Your task to perform on an android device: Open Maps and search for coffee Image 0: 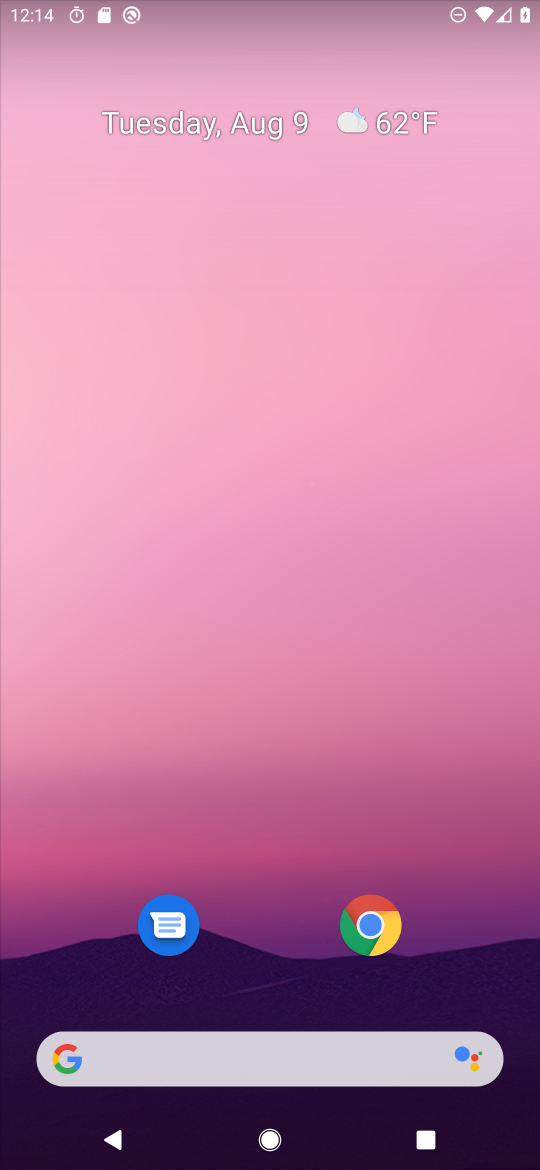
Step 0: drag from (270, 818) to (320, 224)
Your task to perform on an android device: Open Maps and search for coffee Image 1: 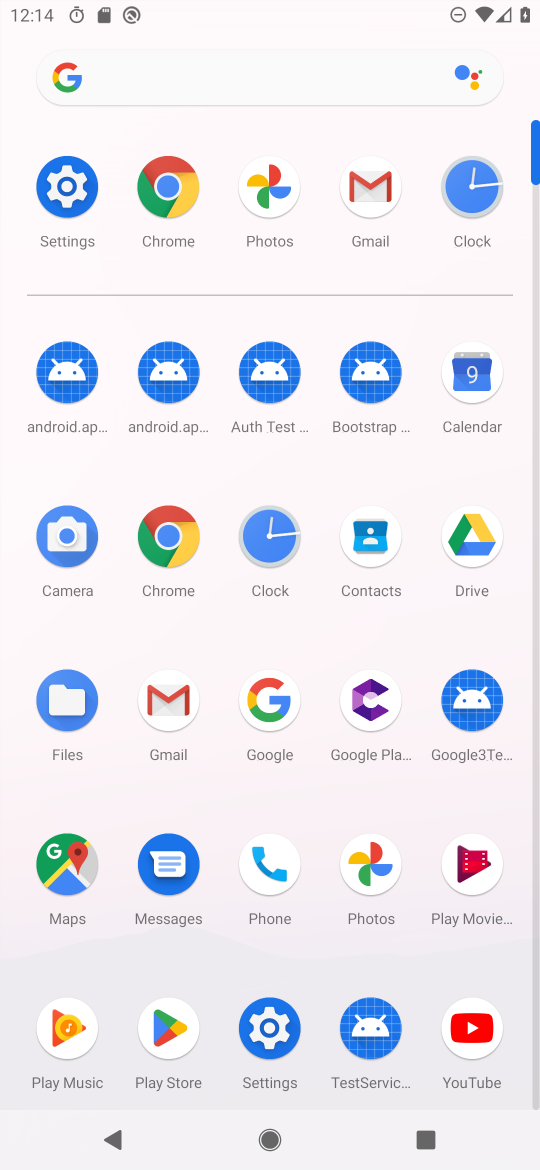
Step 1: click (76, 875)
Your task to perform on an android device: Open Maps and search for coffee Image 2: 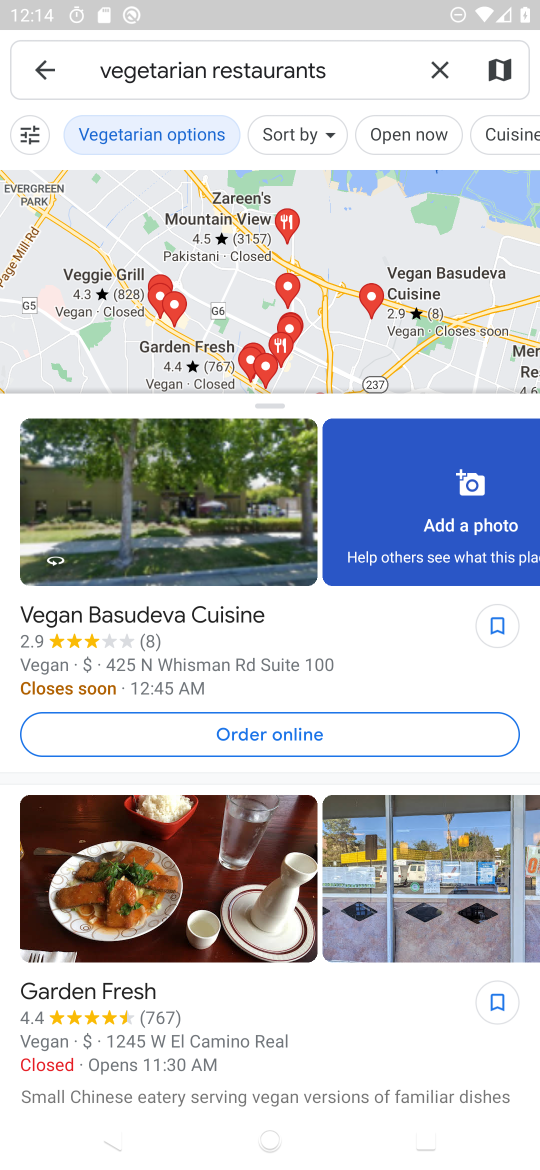
Step 2: click (280, 67)
Your task to perform on an android device: Open Maps and search for coffee Image 3: 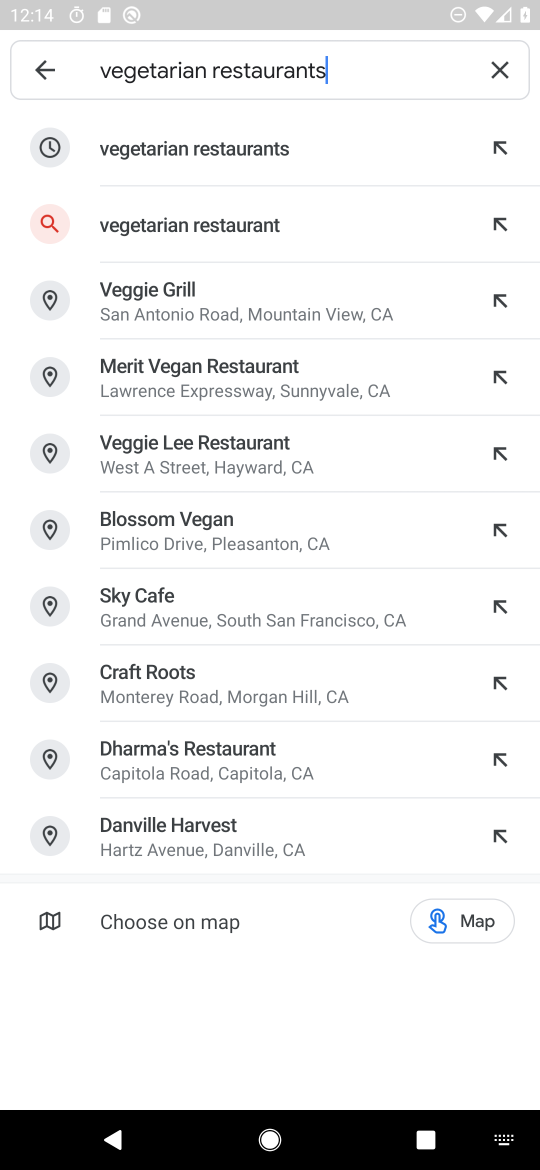
Step 3: click (492, 60)
Your task to perform on an android device: Open Maps and search for coffee Image 4: 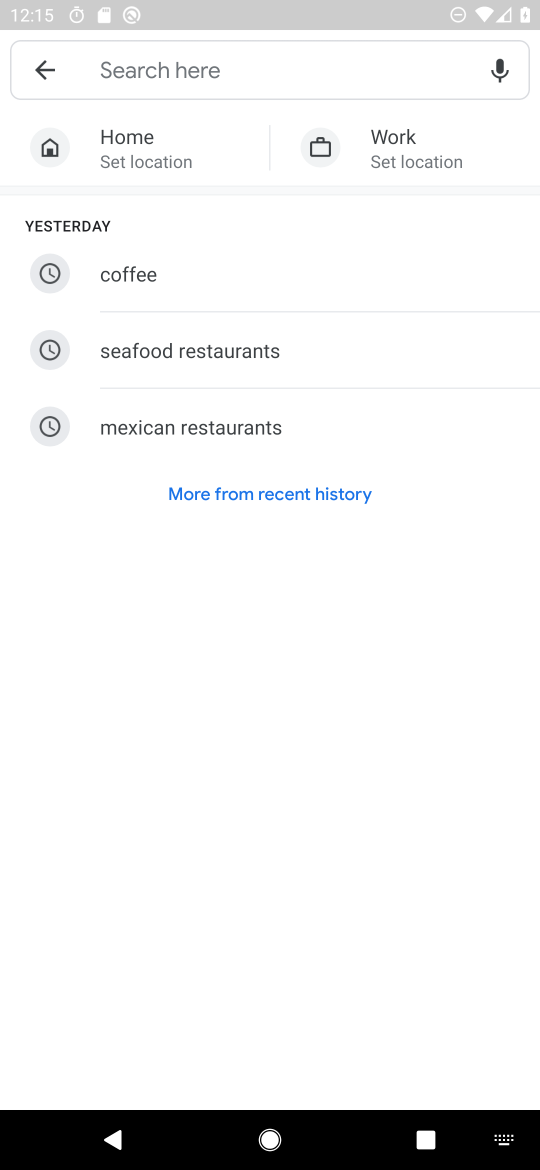
Step 4: click (144, 266)
Your task to perform on an android device: Open Maps and search for coffee Image 5: 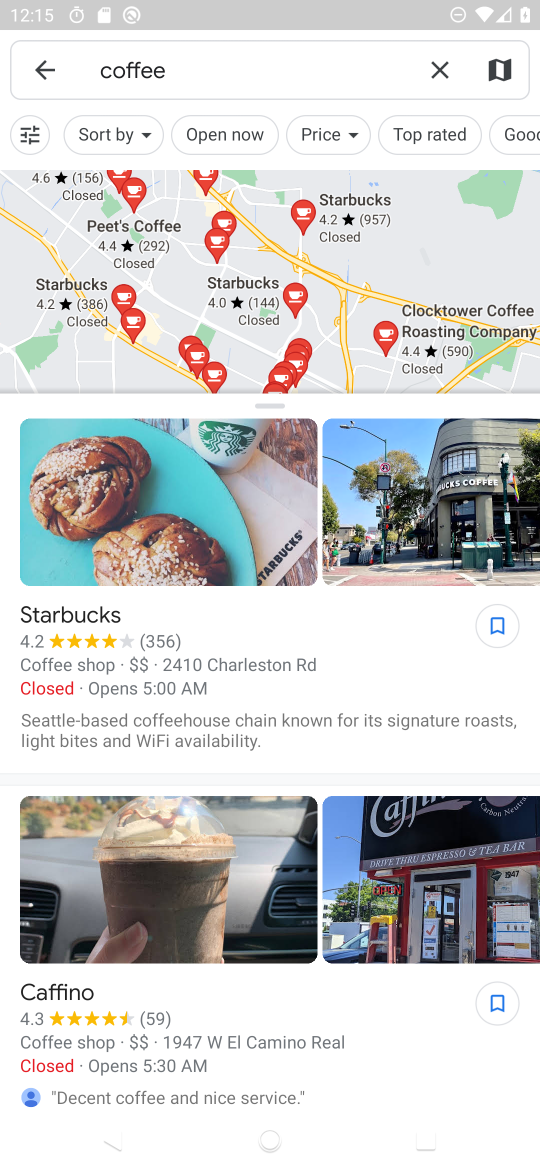
Step 5: task complete